Your task to perform on an android device: empty trash in google photos Image 0: 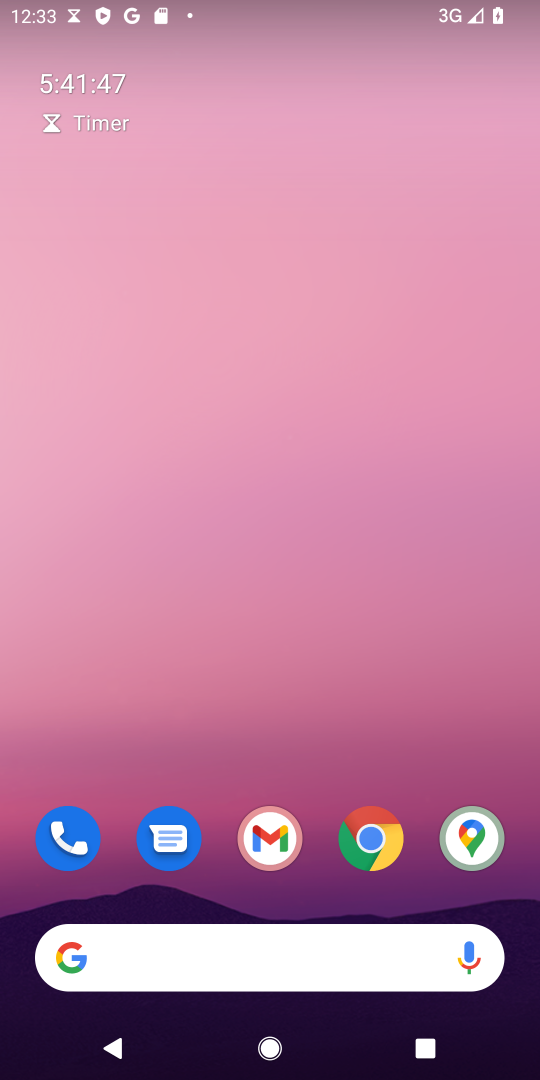
Step 0: drag from (346, 763) to (277, 230)
Your task to perform on an android device: empty trash in google photos Image 1: 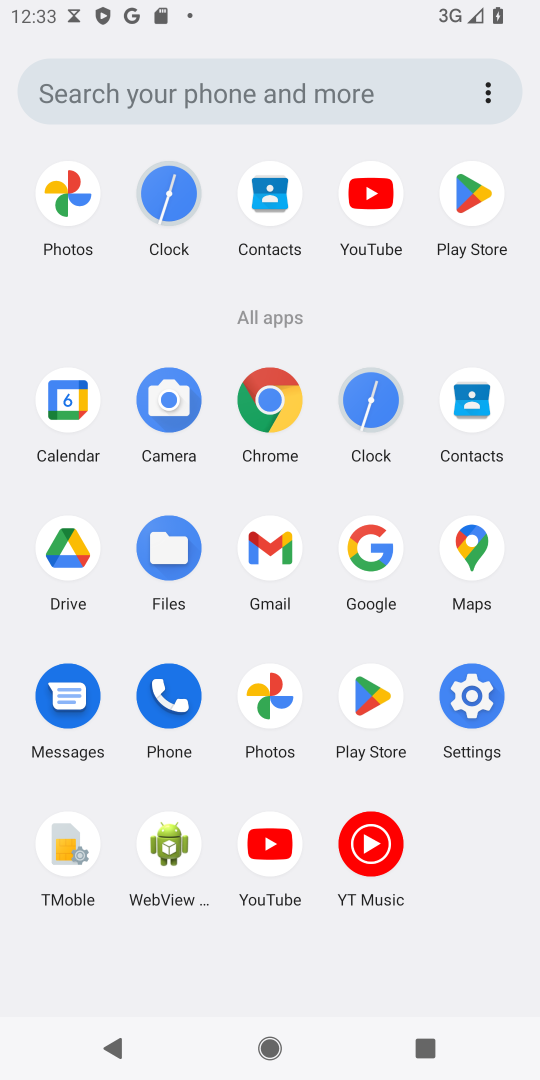
Step 1: click (270, 705)
Your task to perform on an android device: empty trash in google photos Image 2: 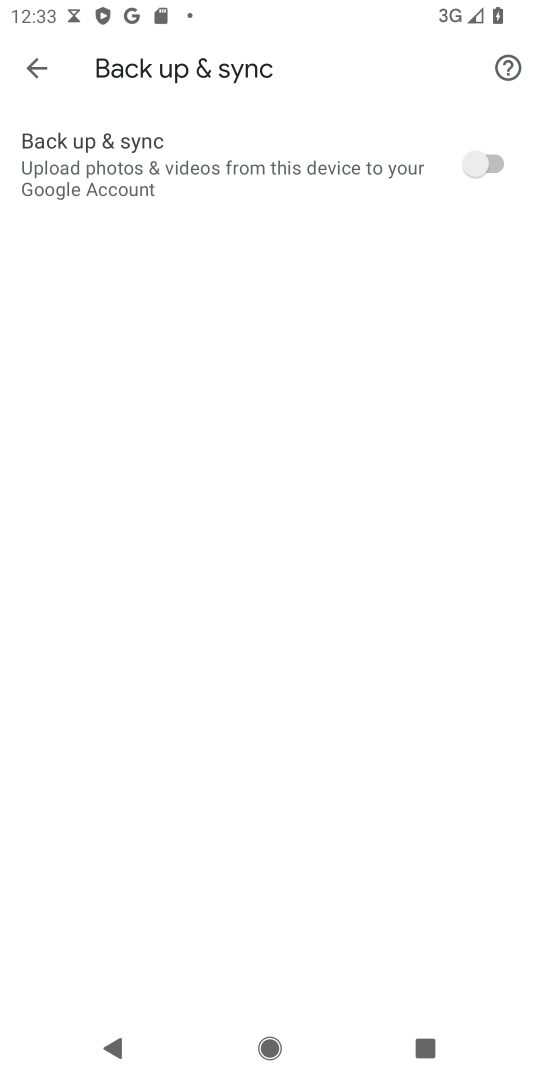
Step 2: click (34, 71)
Your task to perform on an android device: empty trash in google photos Image 3: 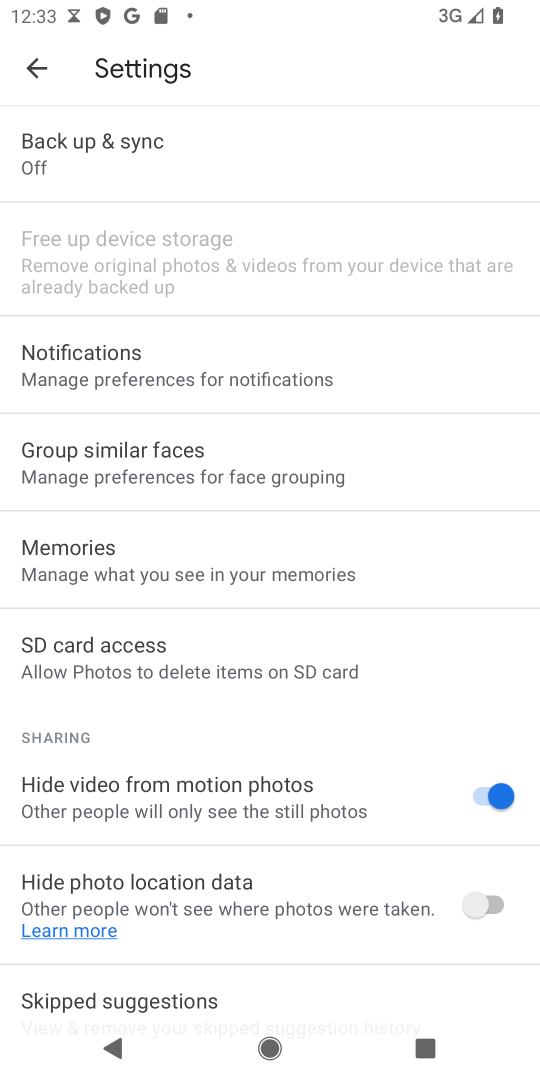
Step 3: click (34, 71)
Your task to perform on an android device: empty trash in google photos Image 4: 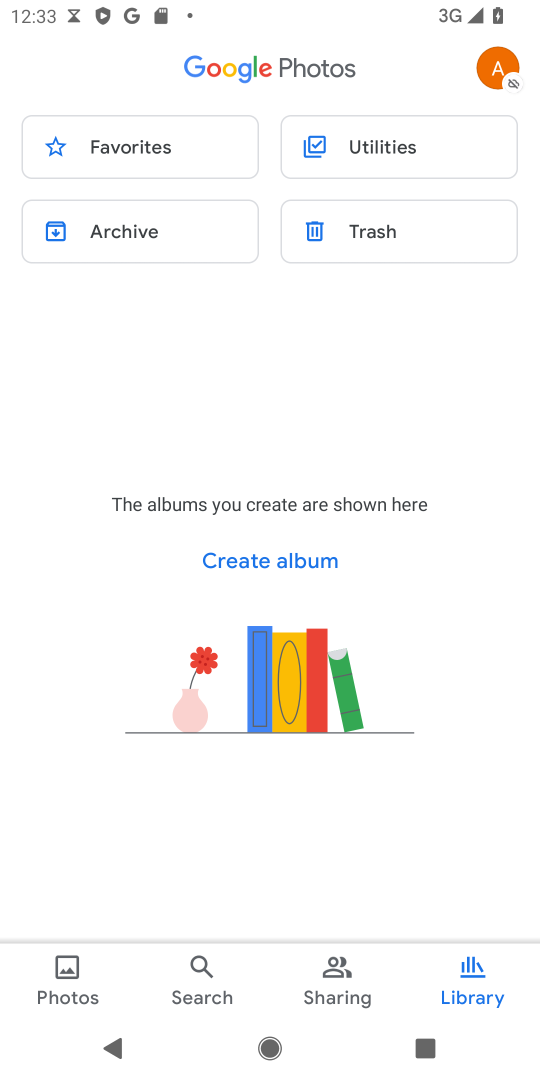
Step 4: click (419, 221)
Your task to perform on an android device: empty trash in google photos Image 5: 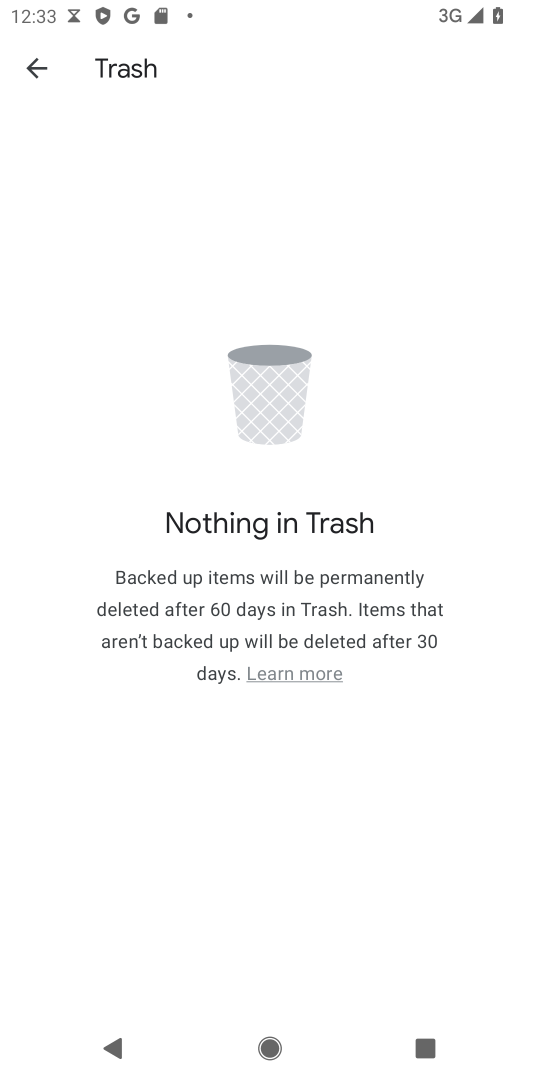
Step 5: task complete